Your task to perform on an android device: Go to internet settings Image 0: 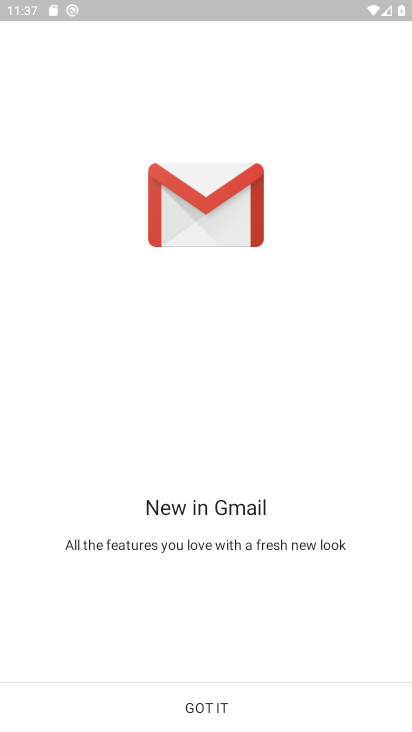
Step 0: press home button
Your task to perform on an android device: Go to internet settings Image 1: 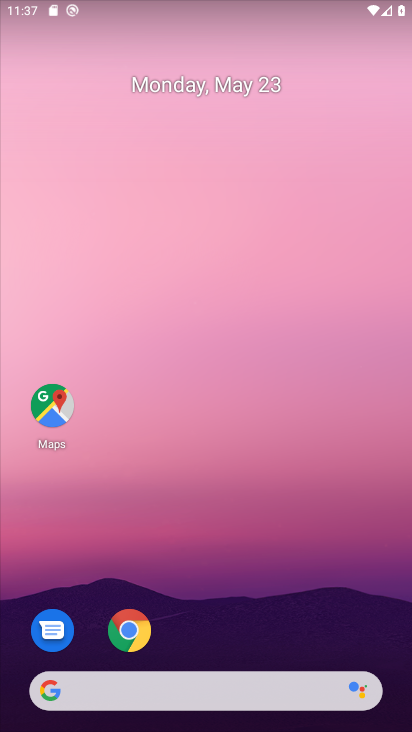
Step 1: drag from (207, 541) to (273, 1)
Your task to perform on an android device: Go to internet settings Image 2: 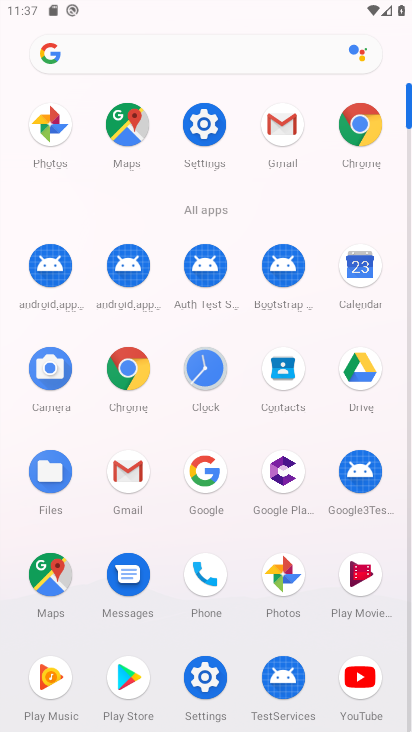
Step 2: click (215, 144)
Your task to perform on an android device: Go to internet settings Image 3: 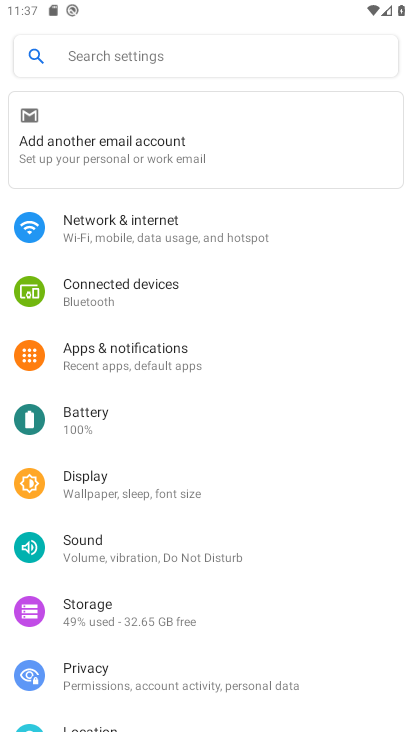
Step 3: click (173, 230)
Your task to perform on an android device: Go to internet settings Image 4: 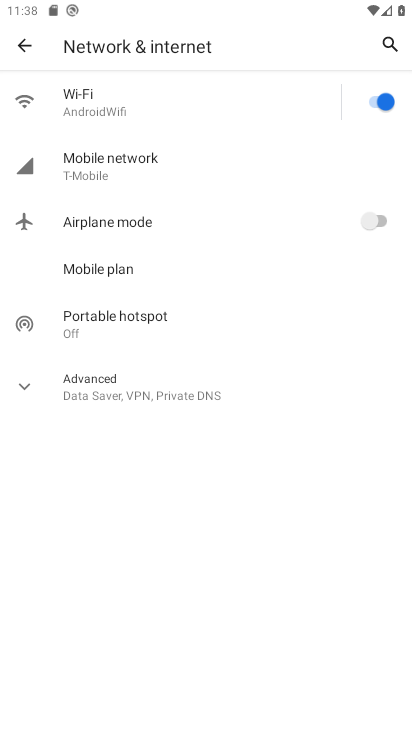
Step 4: task complete